Your task to perform on an android device: check battery use Image 0: 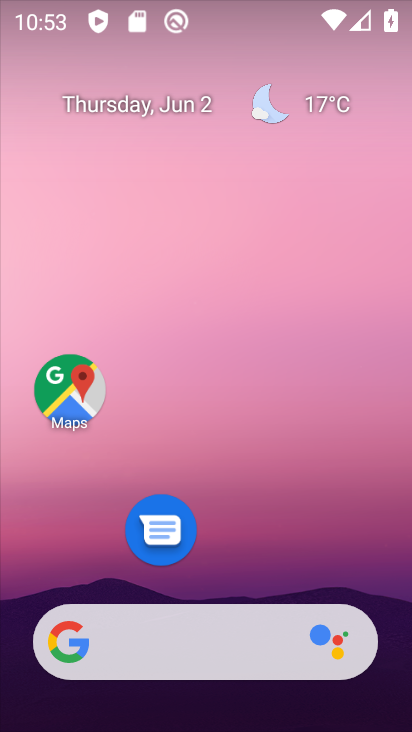
Step 0: drag from (249, 691) to (205, 189)
Your task to perform on an android device: check battery use Image 1: 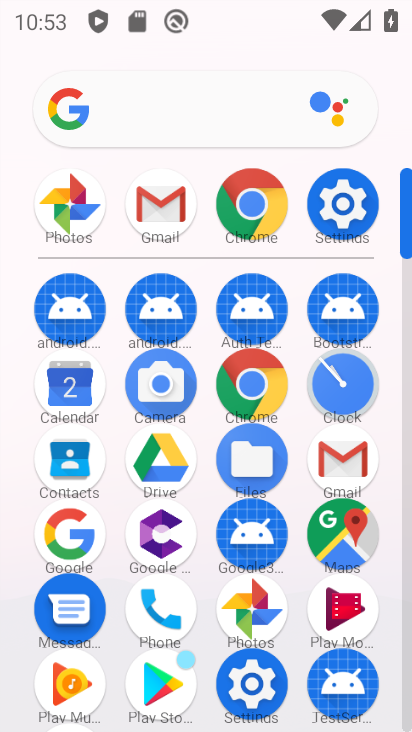
Step 1: click (353, 216)
Your task to perform on an android device: check battery use Image 2: 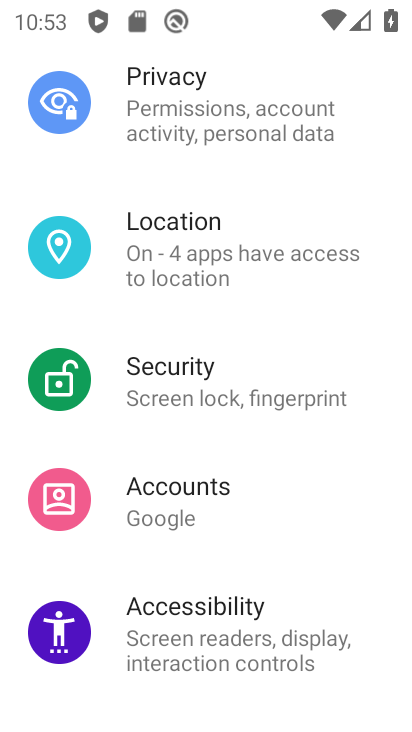
Step 2: drag from (215, 494) to (157, 152)
Your task to perform on an android device: check battery use Image 3: 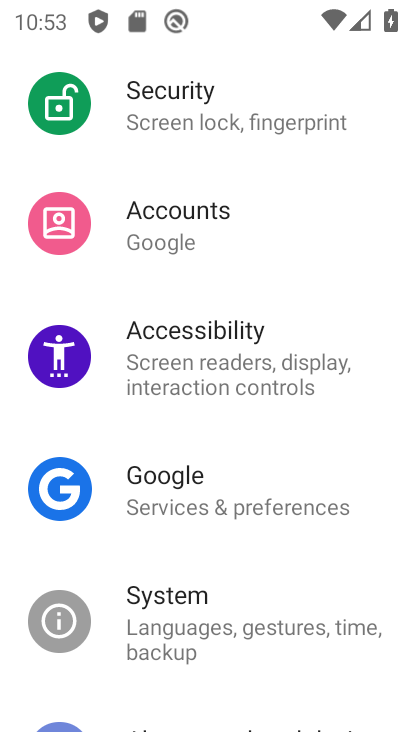
Step 3: drag from (239, 447) to (195, 194)
Your task to perform on an android device: check battery use Image 4: 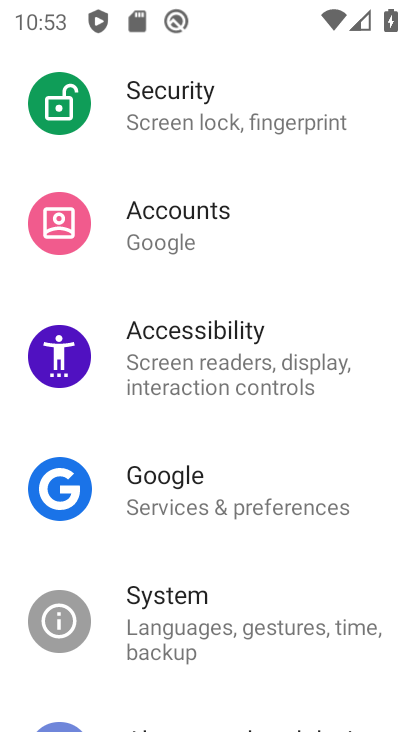
Step 4: drag from (158, 212) to (156, 472)
Your task to perform on an android device: check battery use Image 5: 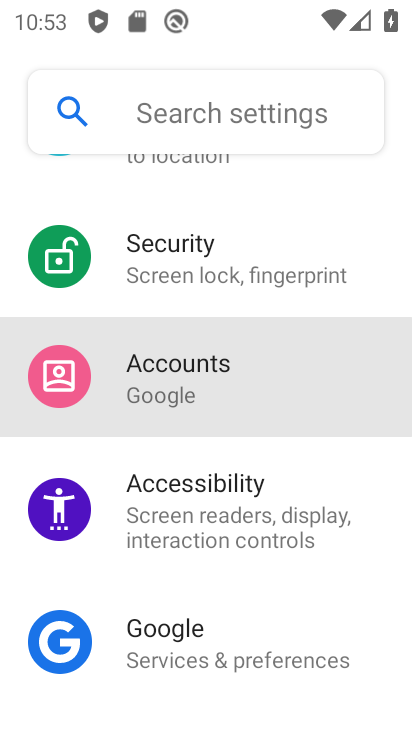
Step 5: drag from (134, 245) to (197, 494)
Your task to perform on an android device: check battery use Image 6: 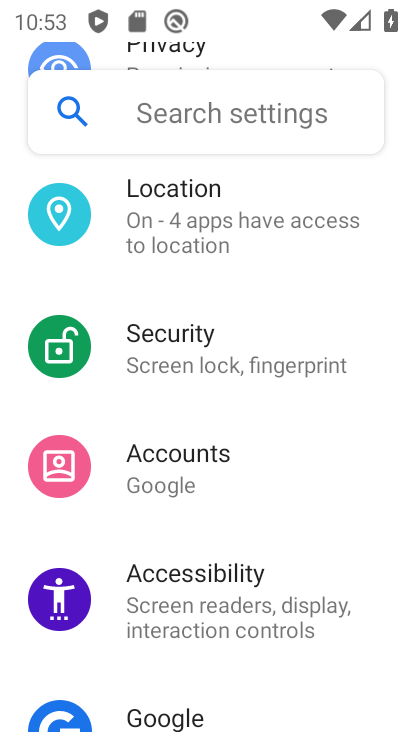
Step 6: drag from (156, 208) to (197, 553)
Your task to perform on an android device: check battery use Image 7: 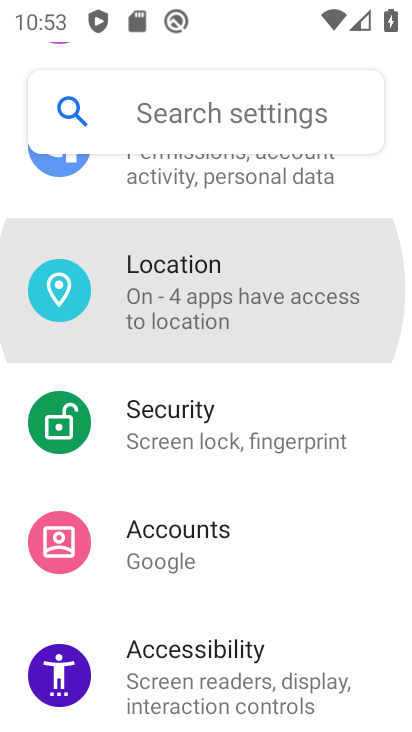
Step 7: drag from (125, 266) to (164, 577)
Your task to perform on an android device: check battery use Image 8: 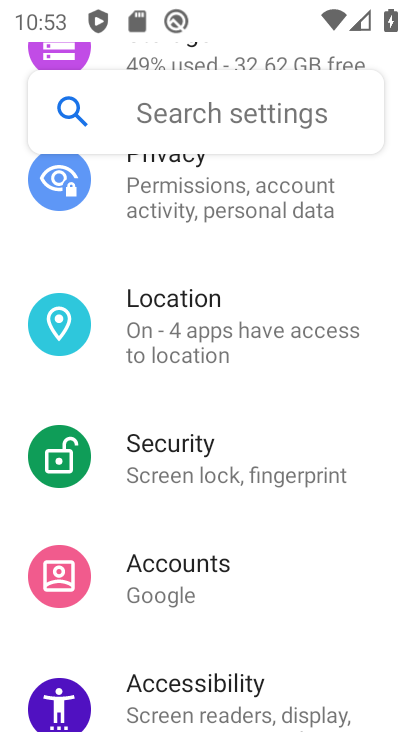
Step 8: drag from (148, 279) to (184, 585)
Your task to perform on an android device: check battery use Image 9: 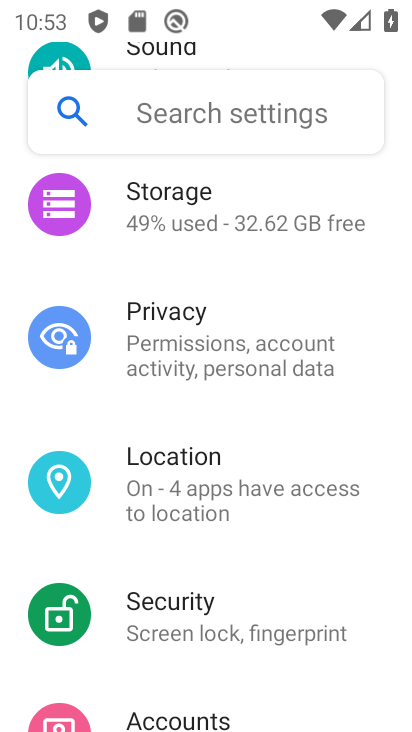
Step 9: drag from (149, 285) to (192, 581)
Your task to perform on an android device: check battery use Image 10: 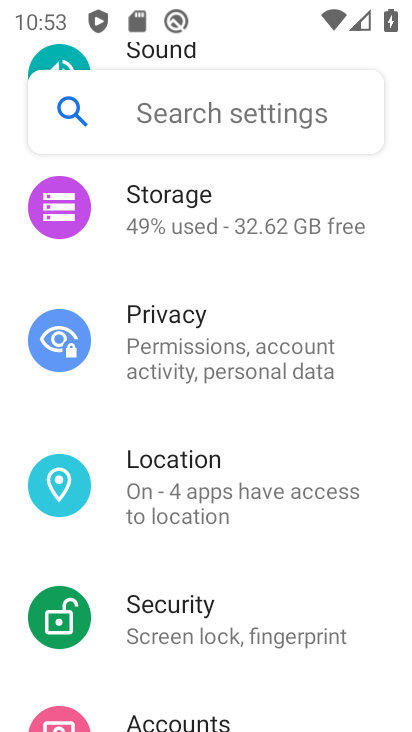
Step 10: drag from (161, 253) to (209, 579)
Your task to perform on an android device: check battery use Image 11: 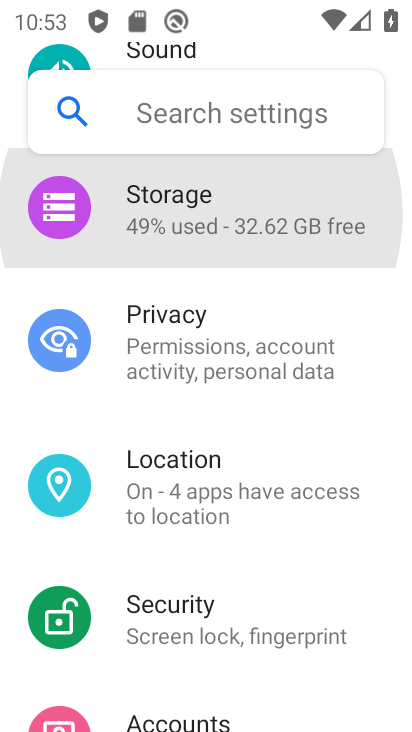
Step 11: drag from (155, 256) to (198, 579)
Your task to perform on an android device: check battery use Image 12: 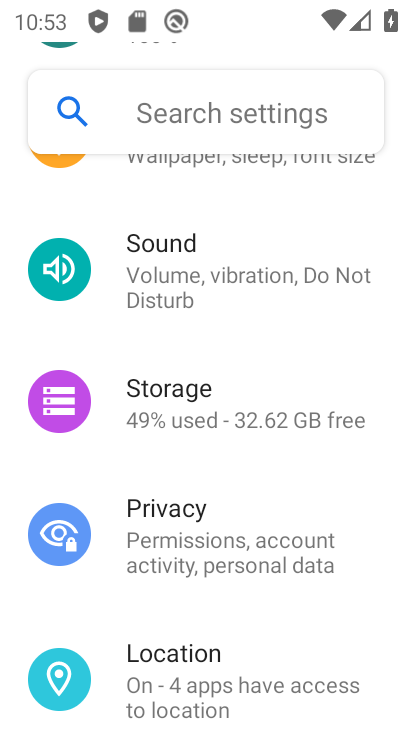
Step 12: drag from (141, 364) to (199, 568)
Your task to perform on an android device: check battery use Image 13: 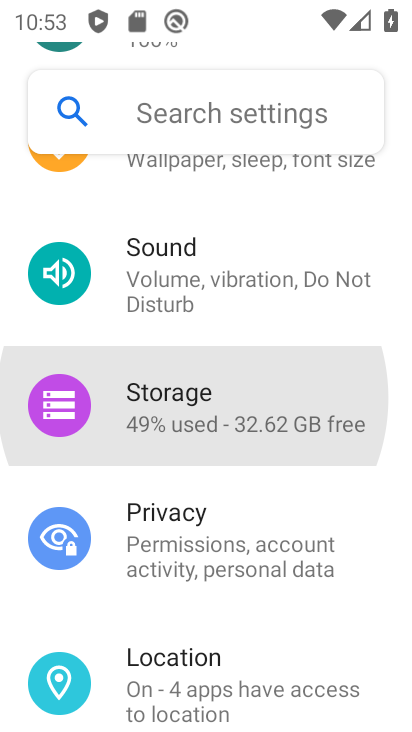
Step 13: drag from (159, 265) to (207, 496)
Your task to perform on an android device: check battery use Image 14: 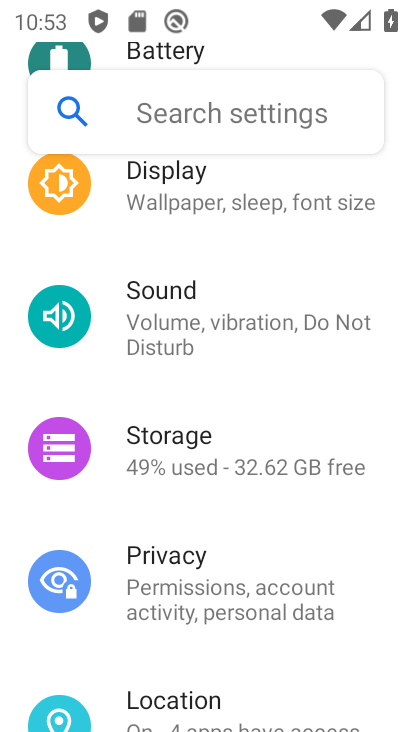
Step 14: drag from (215, 432) to (245, 567)
Your task to perform on an android device: check battery use Image 15: 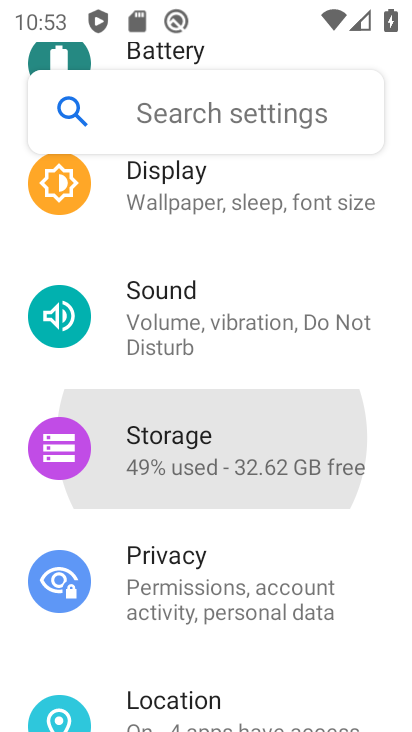
Step 15: drag from (153, 501) to (160, 582)
Your task to perform on an android device: check battery use Image 16: 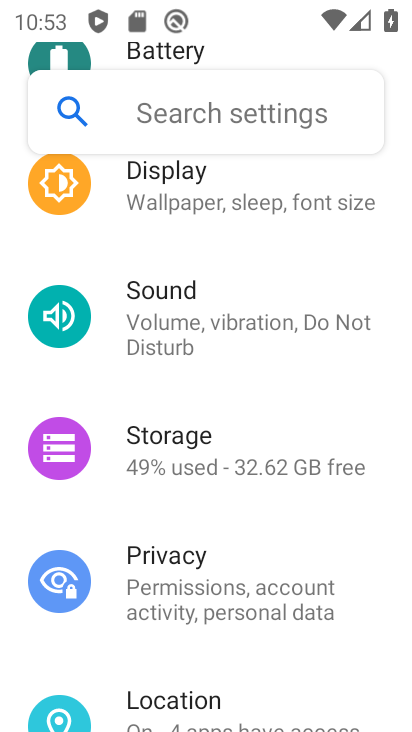
Step 16: drag from (191, 380) to (230, 561)
Your task to perform on an android device: check battery use Image 17: 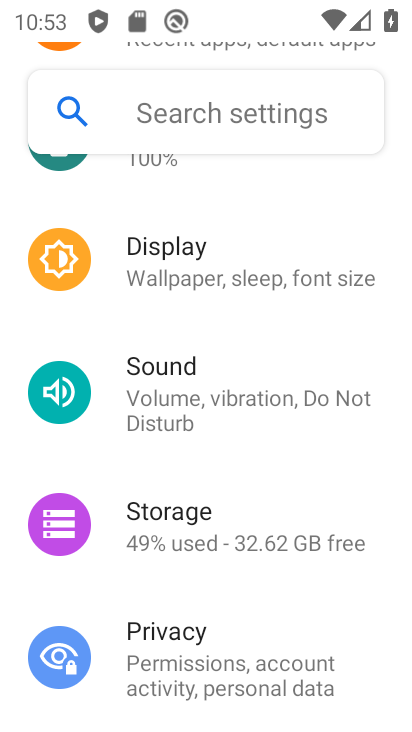
Step 17: drag from (195, 375) to (217, 542)
Your task to perform on an android device: check battery use Image 18: 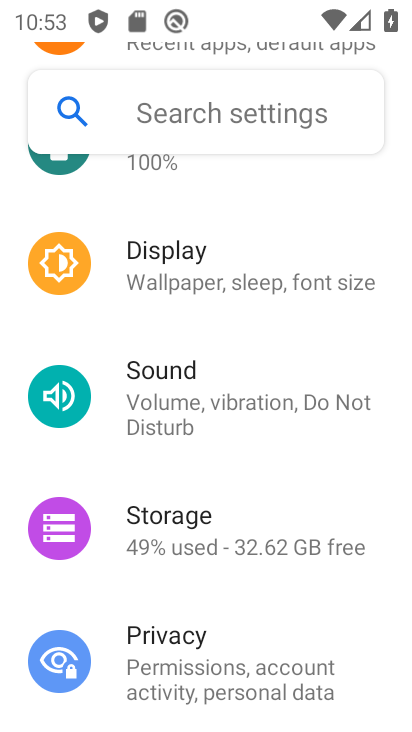
Step 18: drag from (165, 613) to (159, 277)
Your task to perform on an android device: check battery use Image 19: 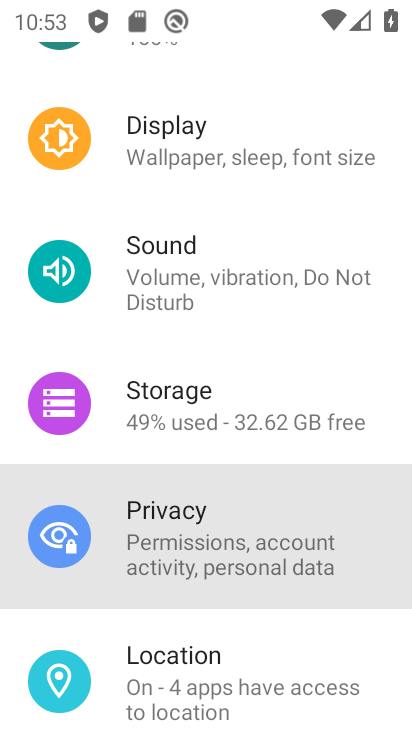
Step 19: drag from (215, 500) to (203, 289)
Your task to perform on an android device: check battery use Image 20: 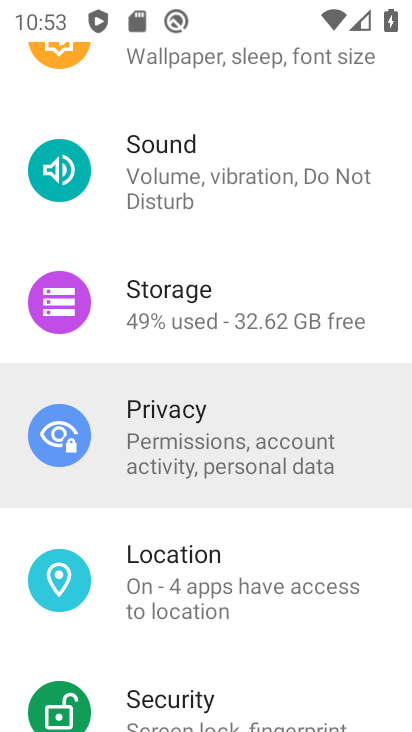
Step 20: drag from (200, 557) to (158, 294)
Your task to perform on an android device: check battery use Image 21: 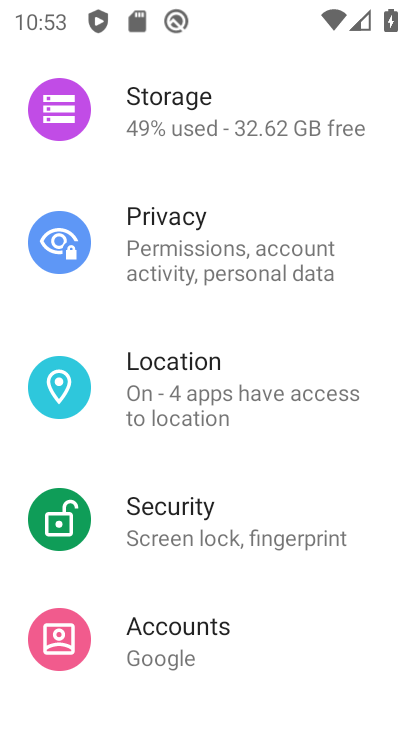
Step 21: drag from (164, 573) to (137, 288)
Your task to perform on an android device: check battery use Image 22: 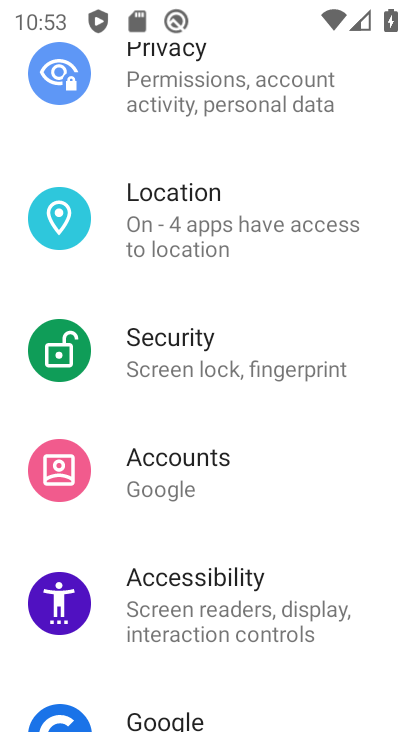
Step 22: drag from (185, 539) to (183, 270)
Your task to perform on an android device: check battery use Image 23: 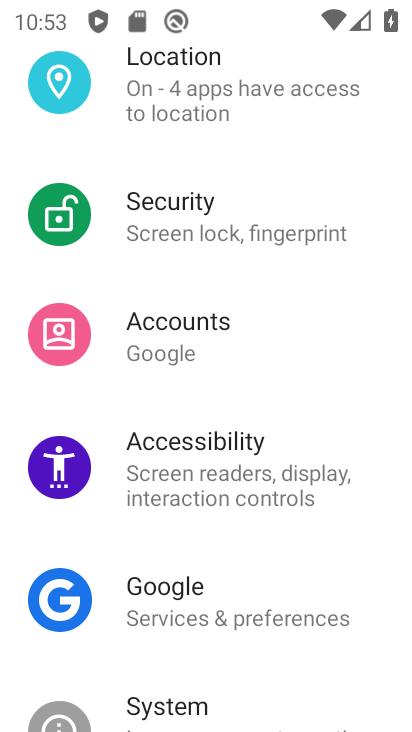
Step 23: drag from (227, 620) to (208, 384)
Your task to perform on an android device: check battery use Image 24: 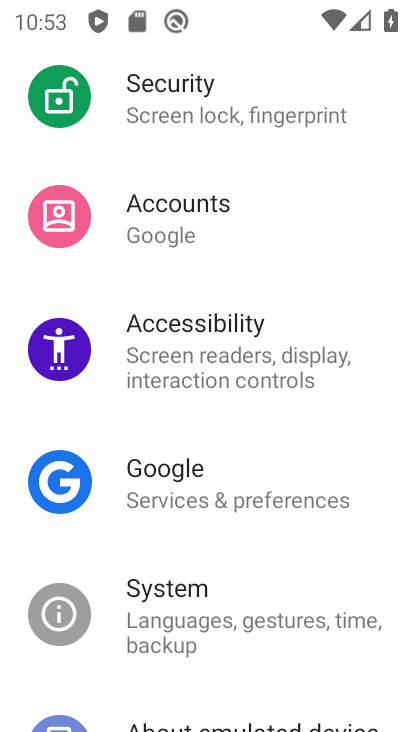
Step 24: drag from (195, 664) to (195, 375)
Your task to perform on an android device: check battery use Image 25: 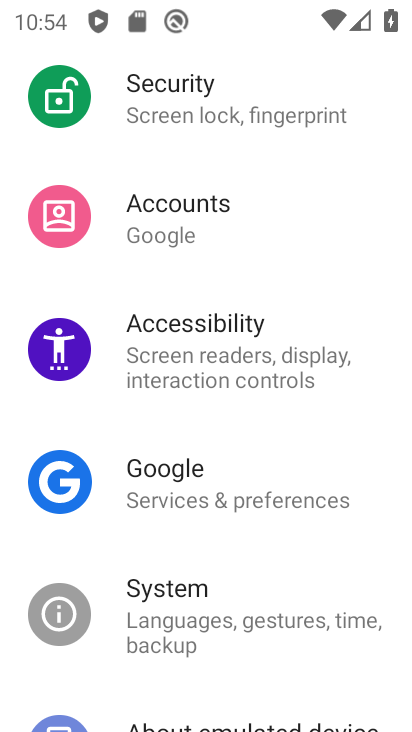
Step 25: drag from (191, 175) to (238, 442)
Your task to perform on an android device: check battery use Image 26: 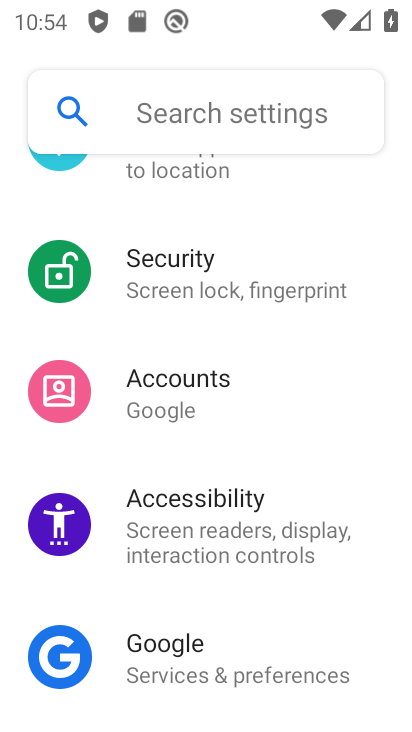
Step 26: drag from (182, 223) to (218, 486)
Your task to perform on an android device: check battery use Image 27: 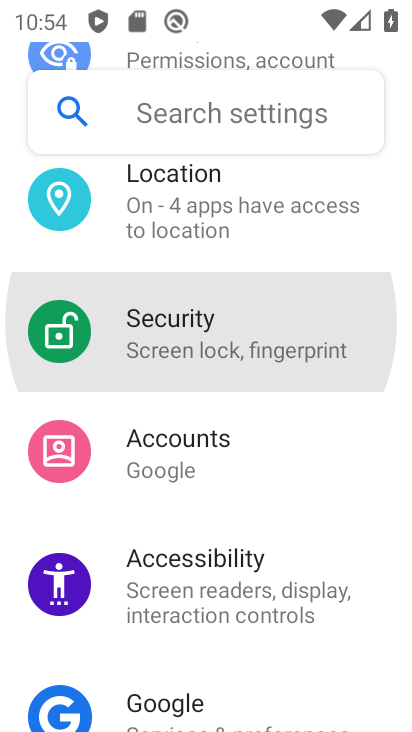
Step 27: drag from (137, 224) to (203, 514)
Your task to perform on an android device: check battery use Image 28: 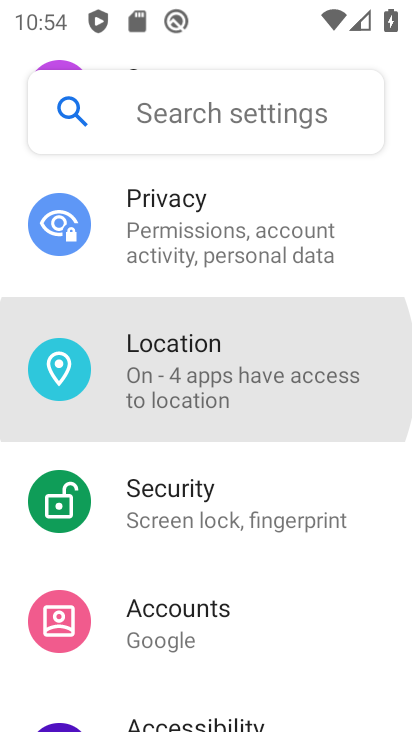
Step 28: drag from (159, 242) to (206, 514)
Your task to perform on an android device: check battery use Image 29: 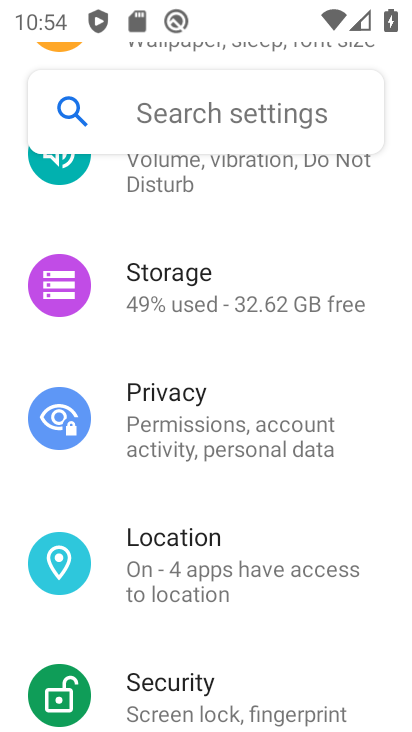
Step 29: drag from (161, 288) to (287, 665)
Your task to perform on an android device: check battery use Image 30: 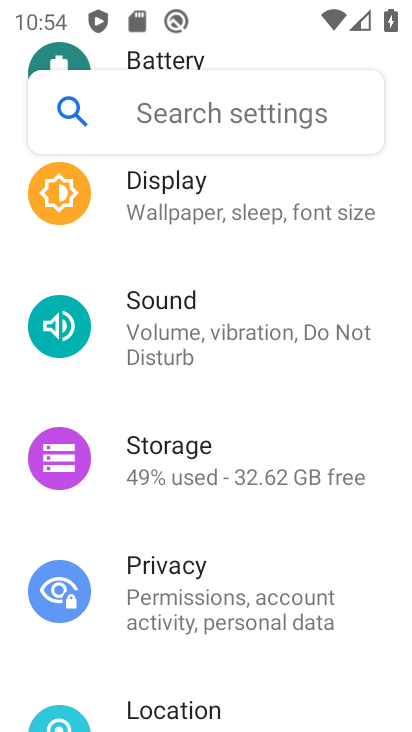
Step 30: drag from (207, 304) to (266, 529)
Your task to perform on an android device: check battery use Image 31: 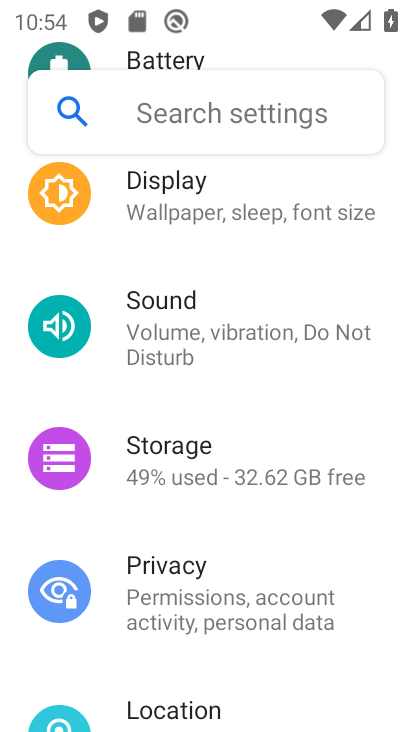
Step 31: drag from (178, 207) to (262, 582)
Your task to perform on an android device: check battery use Image 32: 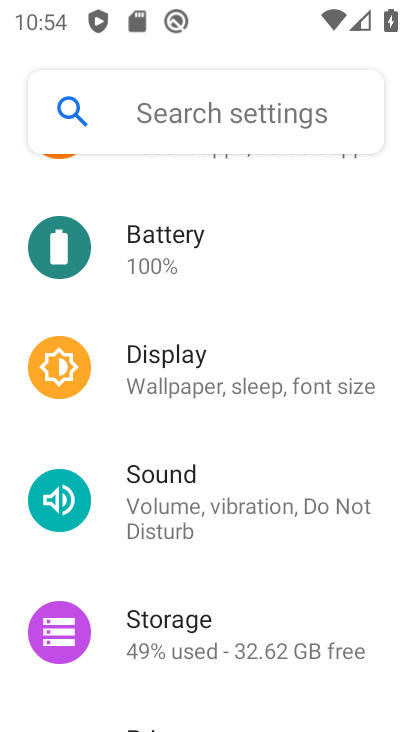
Step 32: click (138, 256)
Your task to perform on an android device: check battery use Image 33: 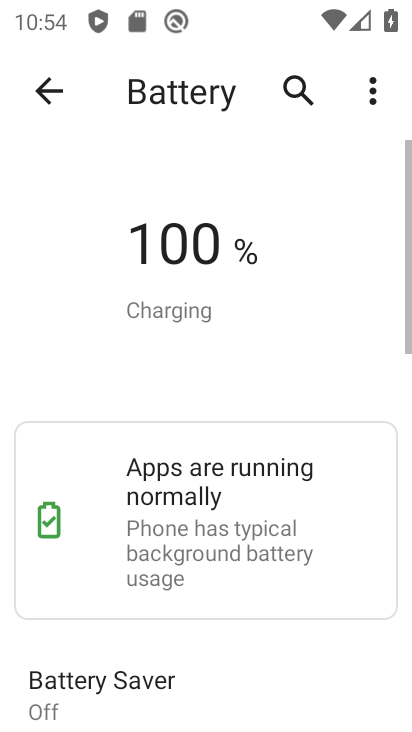
Step 33: task complete